Your task to perform on an android device: open app "Etsy: Buy & Sell Unique Items" (install if not already installed) and go to login screen Image 0: 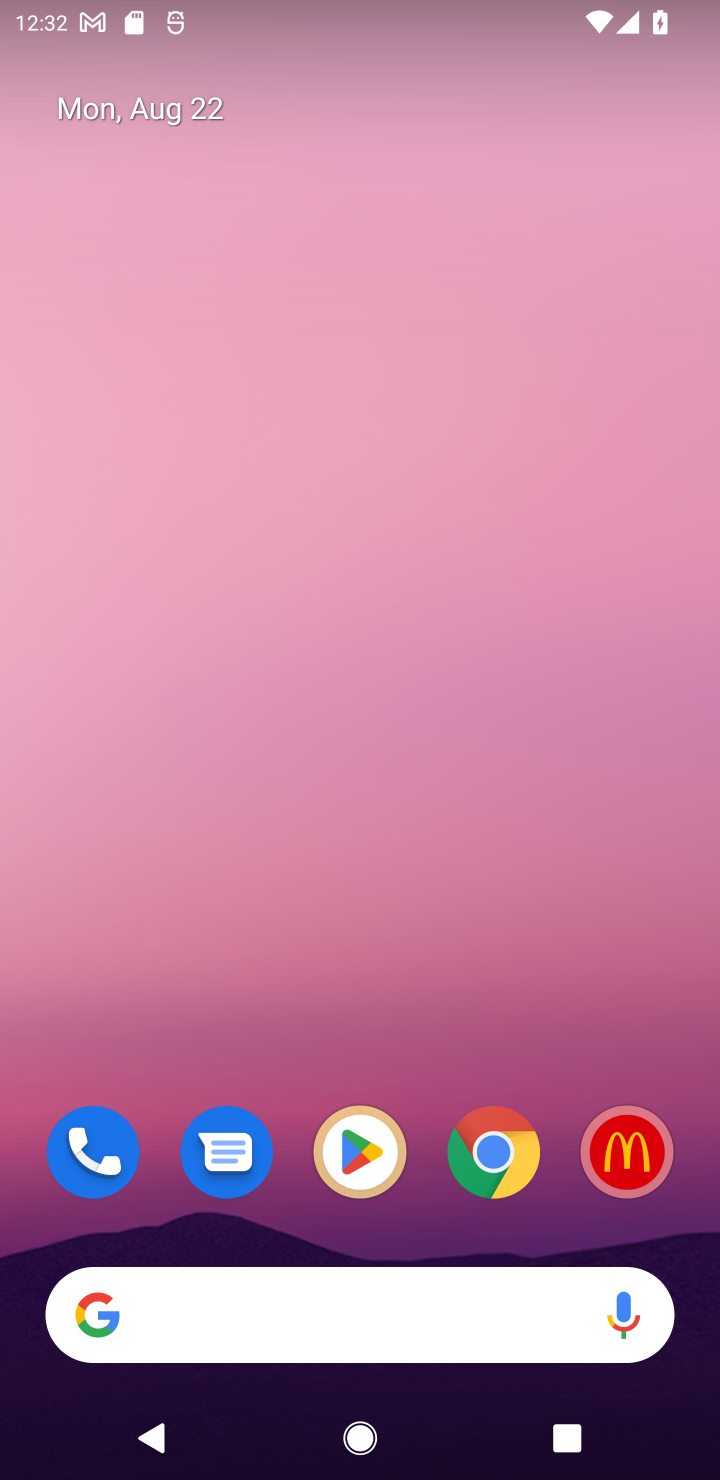
Step 0: click (357, 1161)
Your task to perform on an android device: open app "Etsy: Buy & Sell Unique Items" (install if not already installed) and go to login screen Image 1: 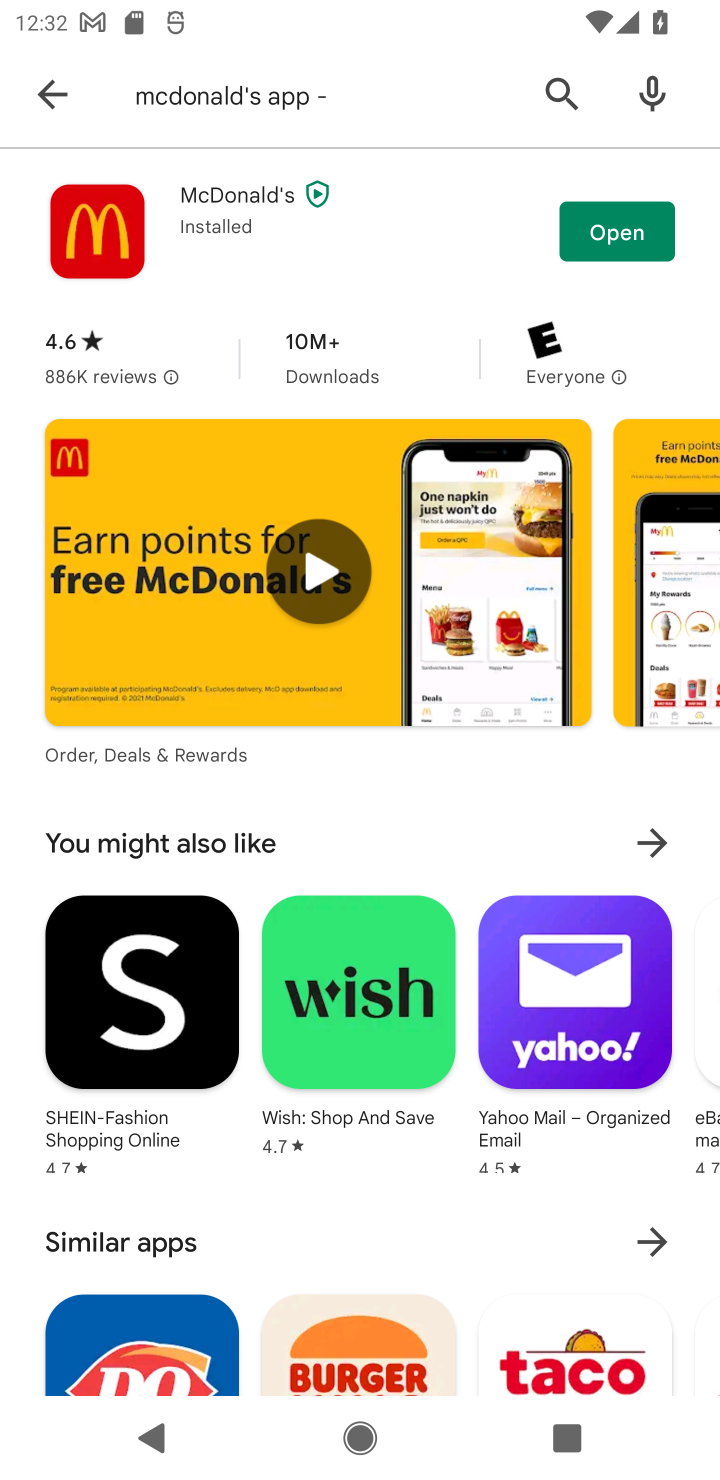
Step 1: click (52, 107)
Your task to perform on an android device: open app "Etsy: Buy & Sell Unique Items" (install if not already installed) and go to login screen Image 2: 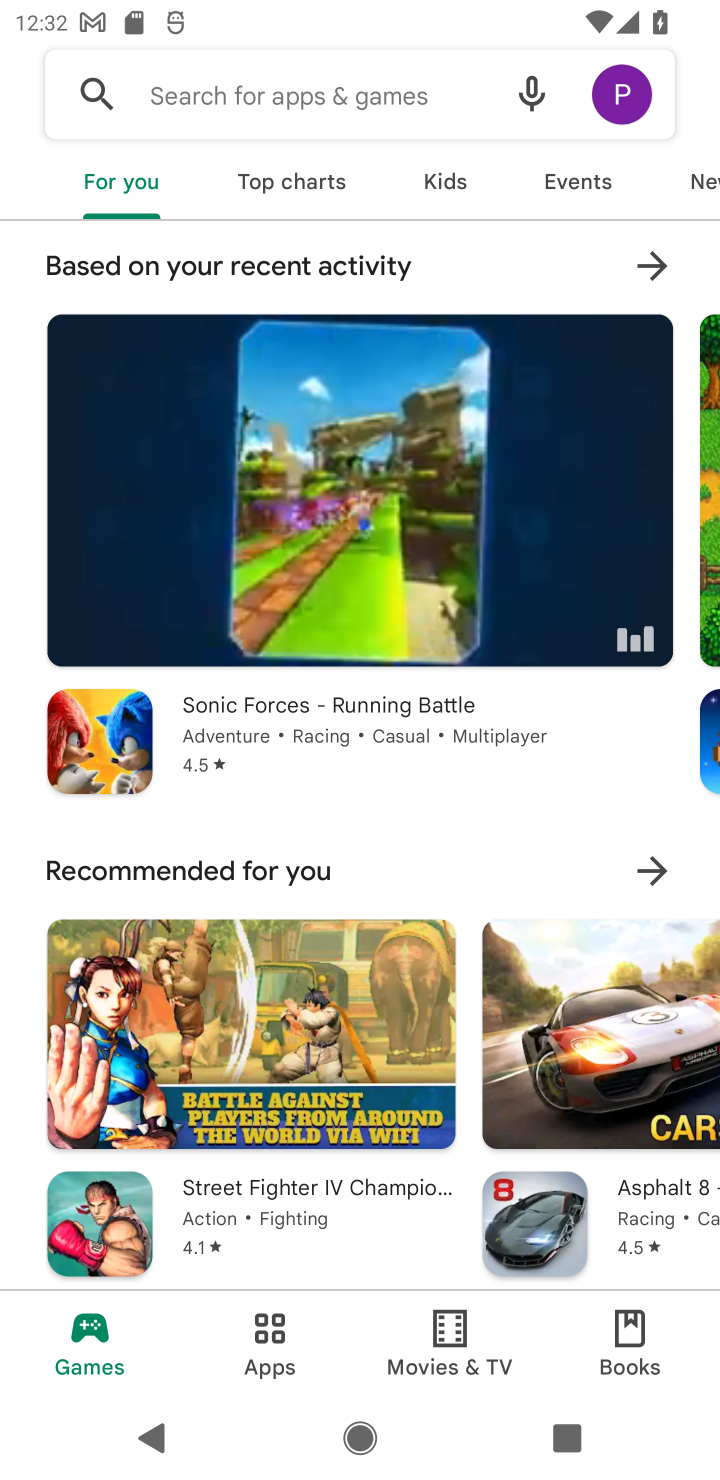
Step 2: click (294, 88)
Your task to perform on an android device: open app "Etsy: Buy & Sell Unique Items" (install if not already installed) and go to login screen Image 3: 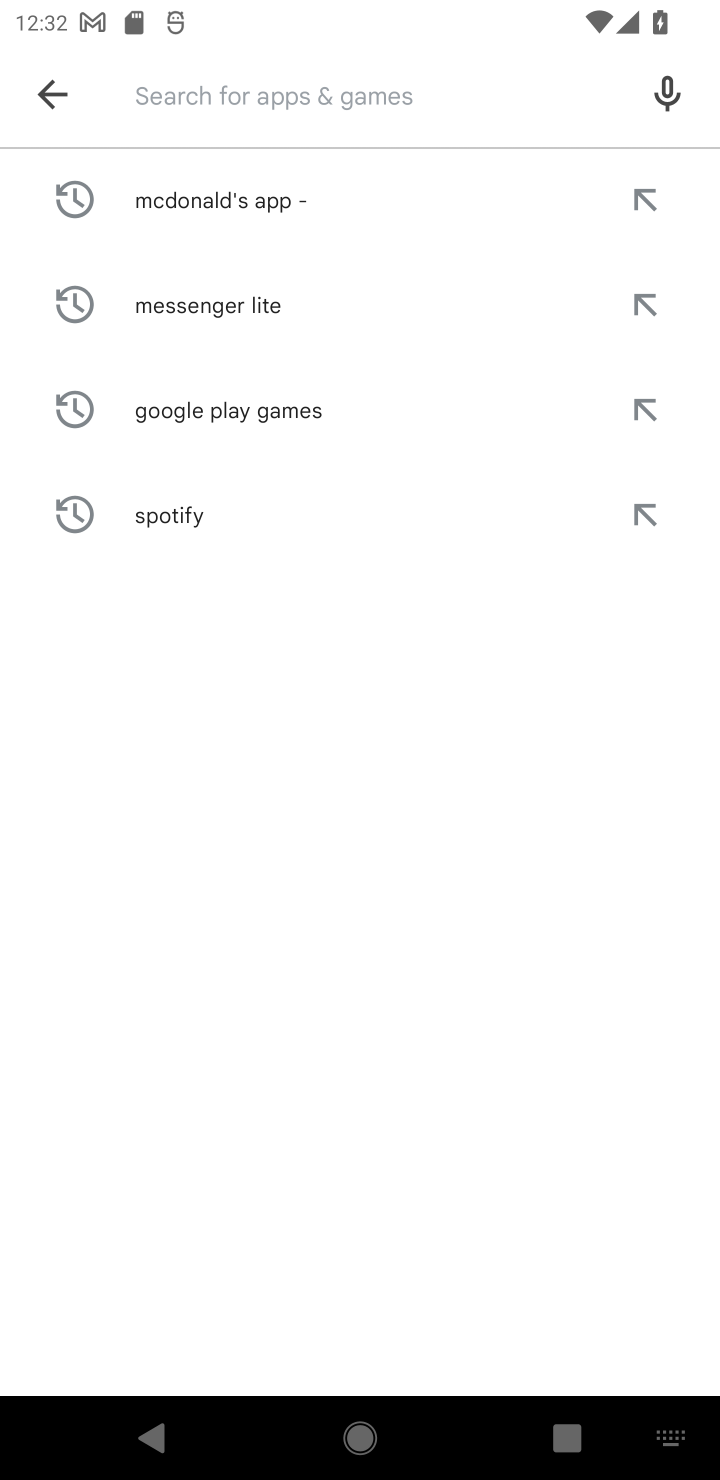
Step 3: type "Etsy"
Your task to perform on an android device: open app "Etsy: Buy & Sell Unique Items" (install if not already installed) and go to login screen Image 4: 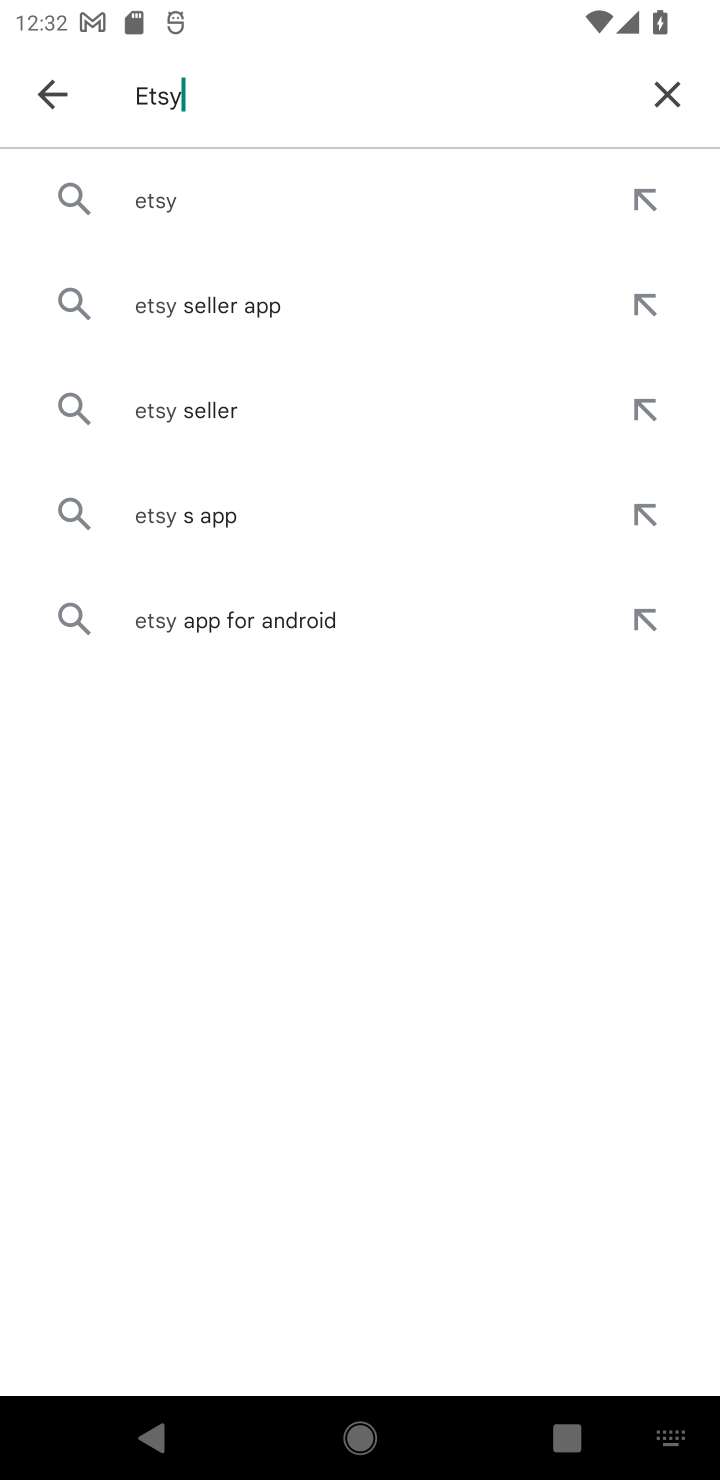
Step 4: click (162, 197)
Your task to perform on an android device: open app "Etsy: Buy & Sell Unique Items" (install if not already installed) and go to login screen Image 5: 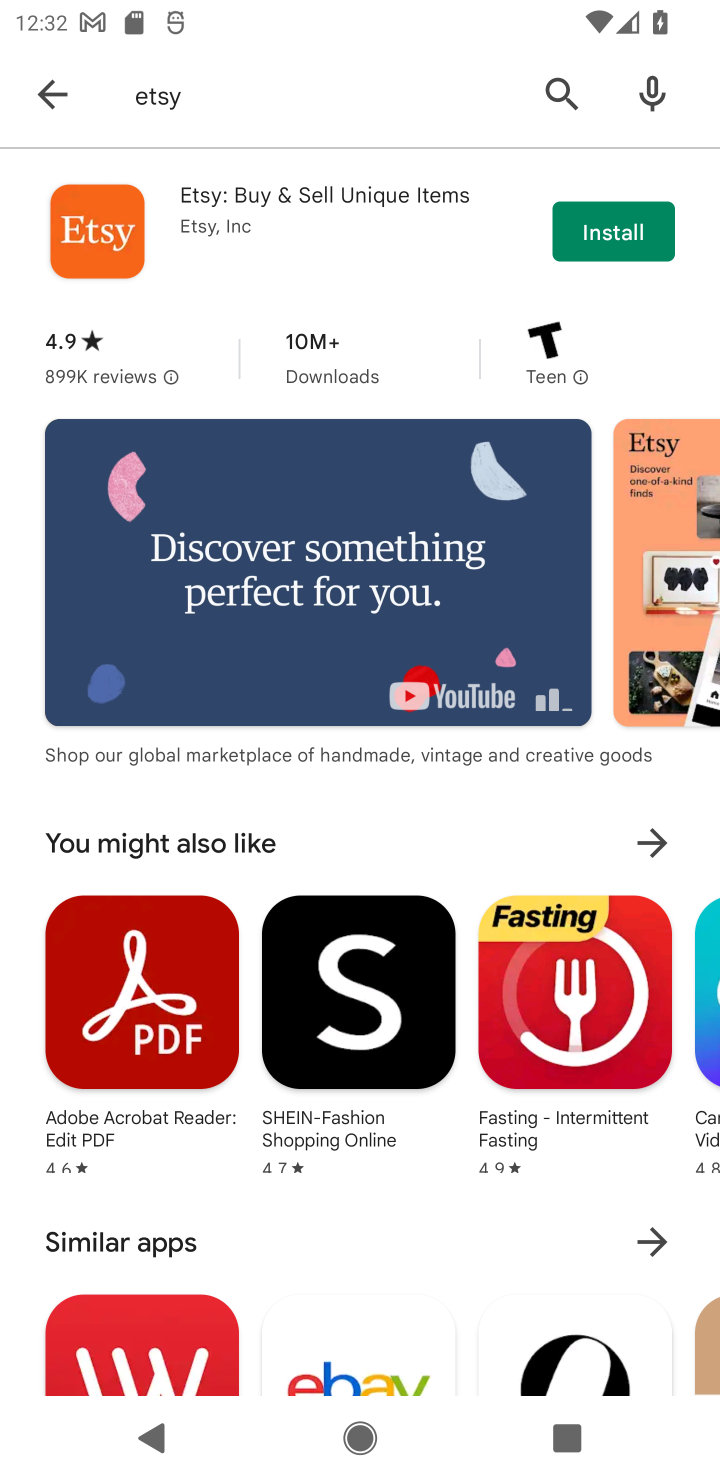
Step 5: click (603, 222)
Your task to perform on an android device: open app "Etsy: Buy & Sell Unique Items" (install if not already installed) and go to login screen Image 6: 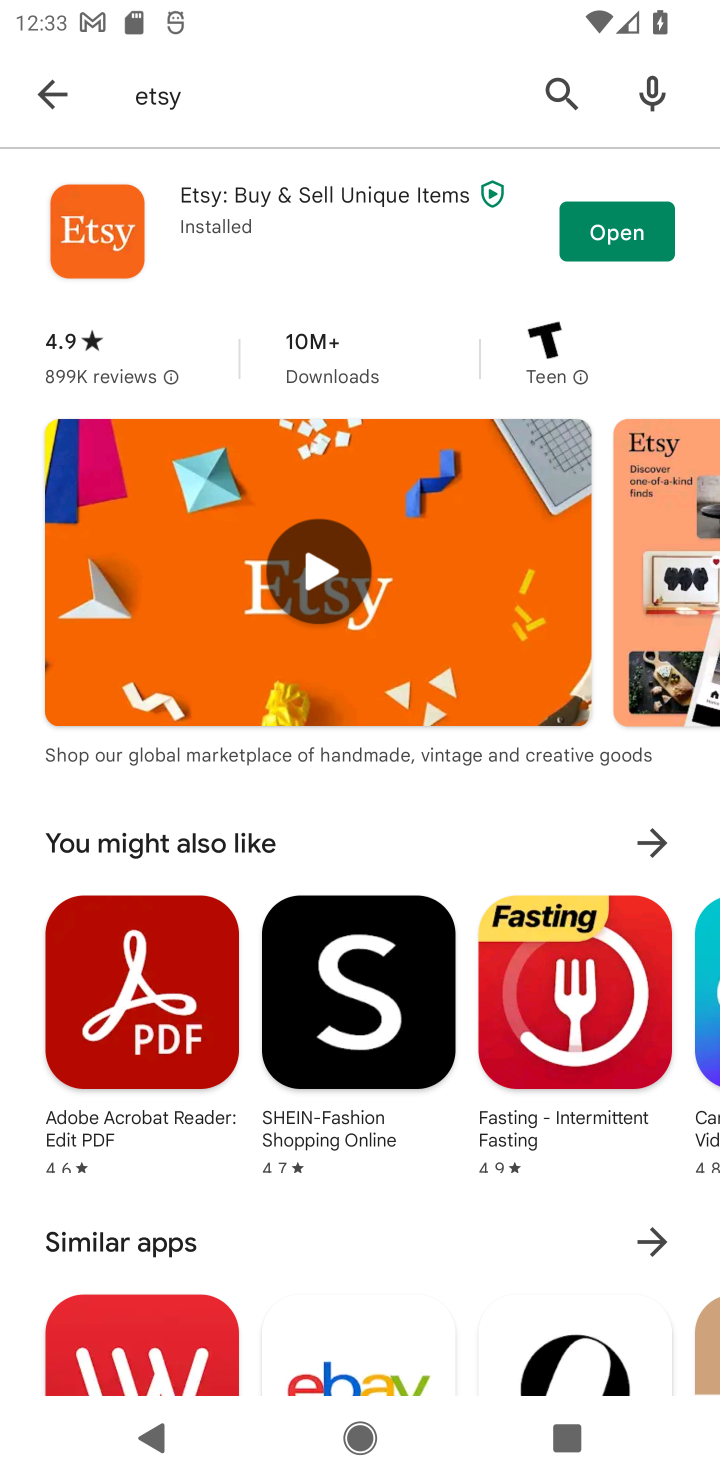
Step 6: click (646, 237)
Your task to perform on an android device: open app "Etsy: Buy & Sell Unique Items" (install if not already installed) and go to login screen Image 7: 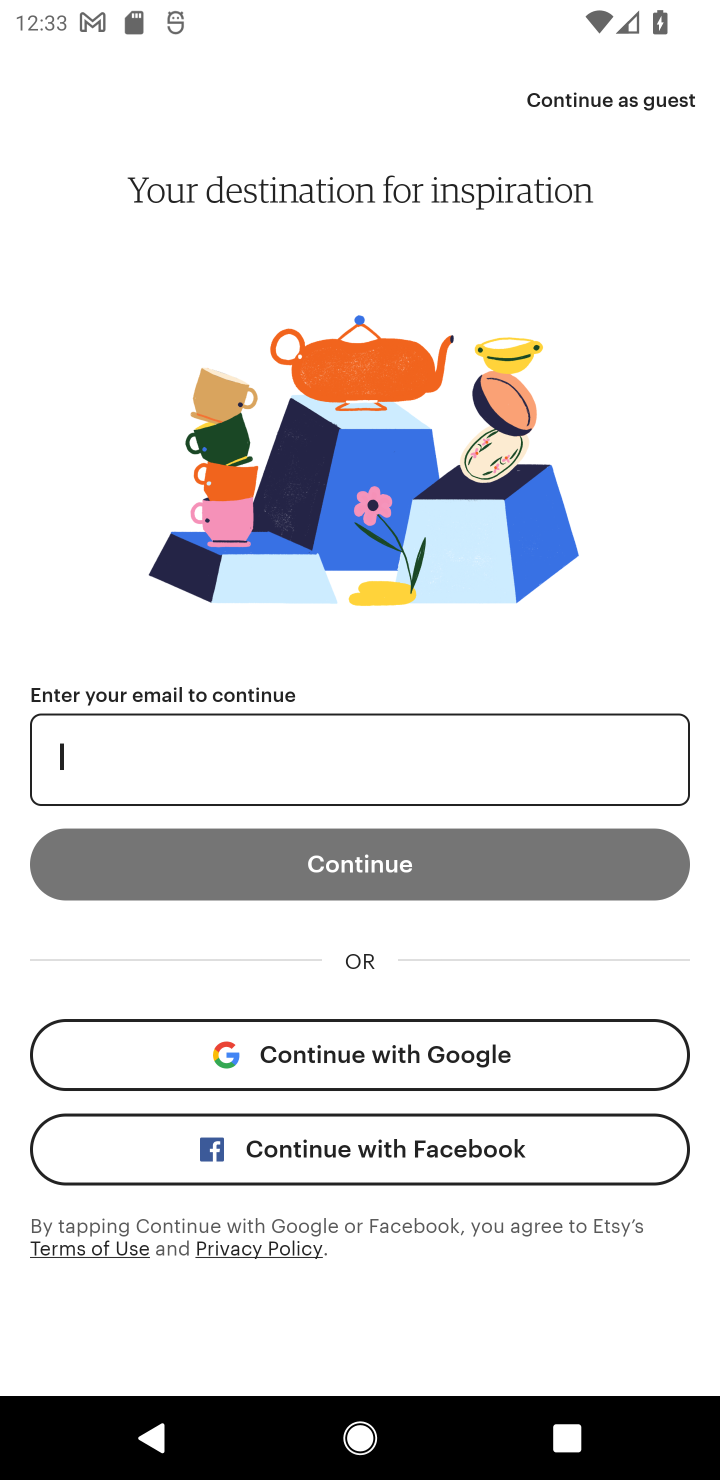
Step 7: task complete